Your task to perform on an android device: Open display settings Image 0: 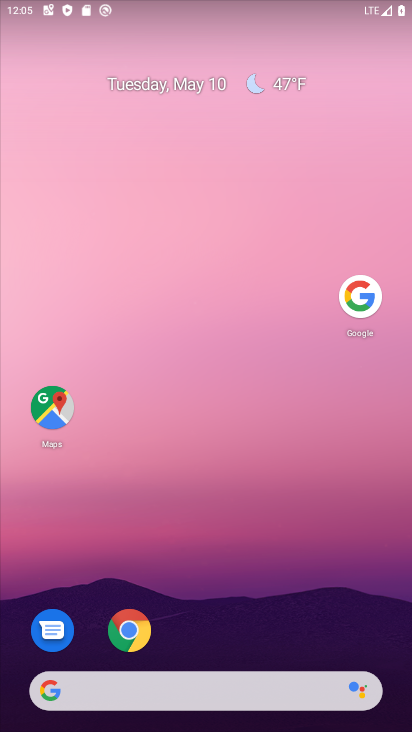
Step 0: press home button
Your task to perform on an android device: Open display settings Image 1: 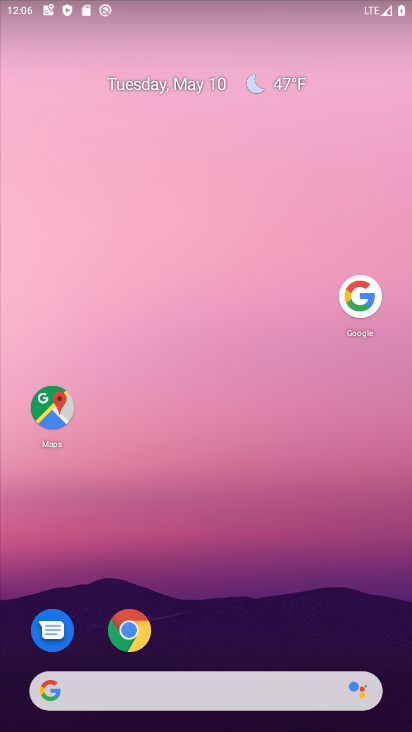
Step 1: drag from (169, 694) to (264, 259)
Your task to perform on an android device: Open display settings Image 2: 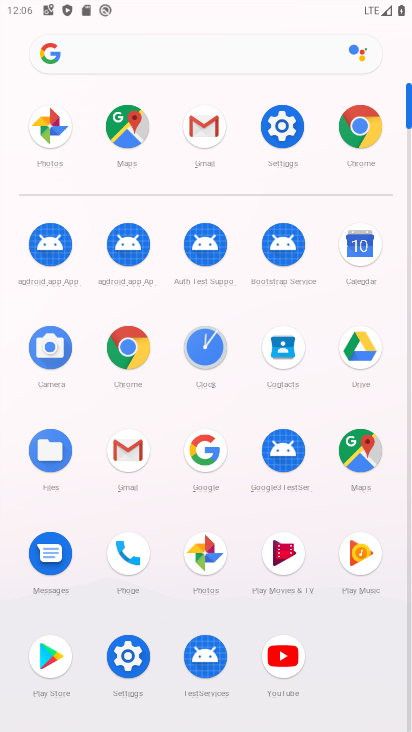
Step 2: click (278, 123)
Your task to perform on an android device: Open display settings Image 3: 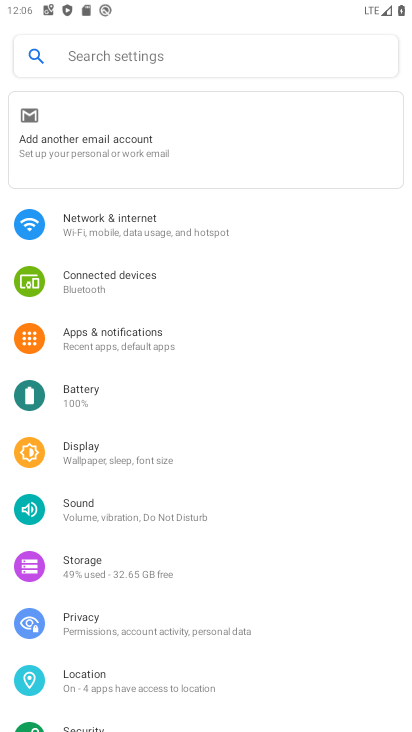
Step 3: click (90, 450)
Your task to perform on an android device: Open display settings Image 4: 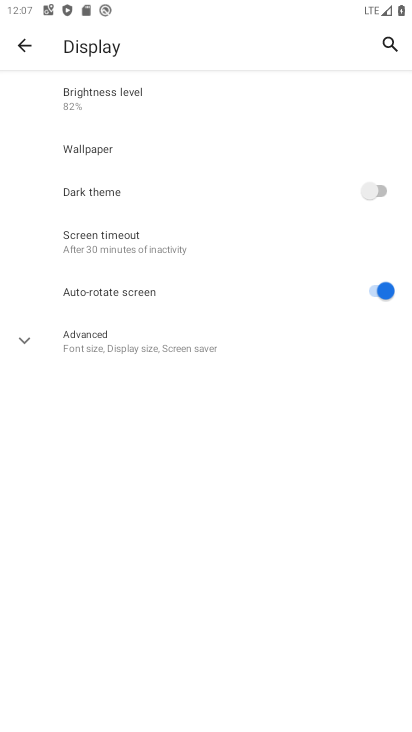
Step 4: task complete